Your task to perform on an android device: toggle notifications settings in the gmail app Image 0: 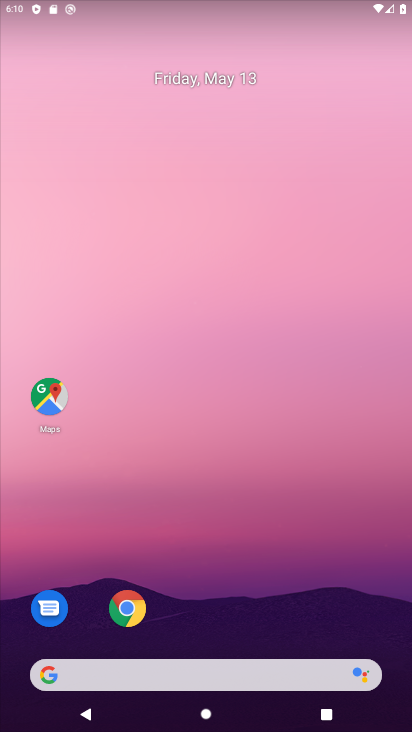
Step 0: drag from (199, 607) to (406, 1)
Your task to perform on an android device: toggle notifications settings in the gmail app Image 1: 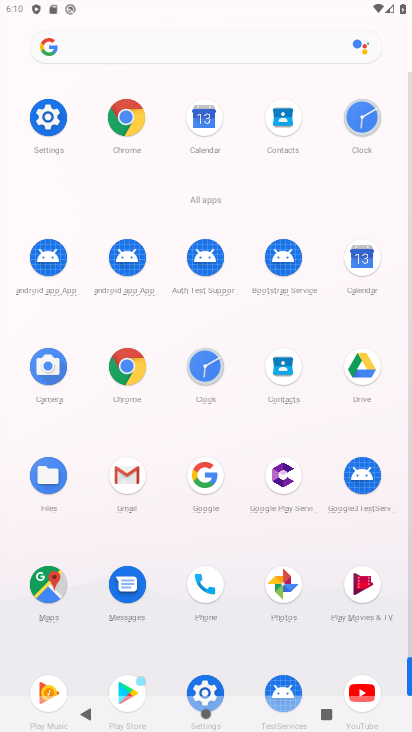
Step 1: click (134, 490)
Your task to perform on an android device: toggle notifications settings in the gmail app Image 2: 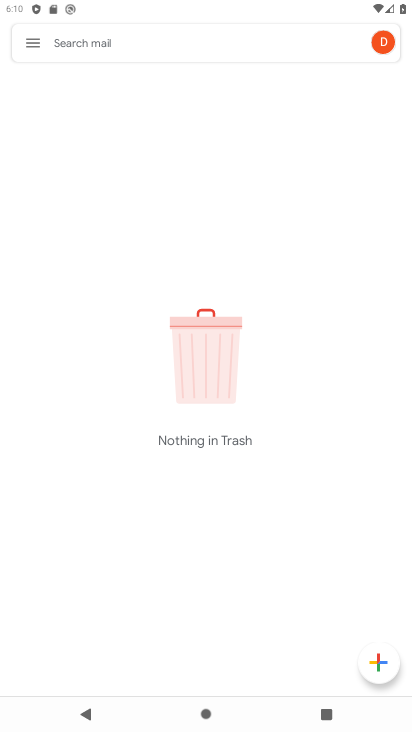
Step 2: click (34, 43)
Your task to perform on an android device: toggle notifications settings in the gmail app Image 3: 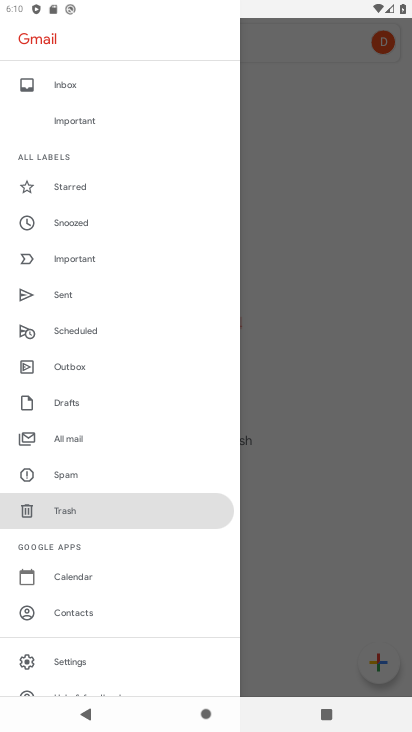
Step 3: drag from (84, 622) to (123, 339)
Your task to perform on an android device: toggle notifications settings in the gmail app Image 4: 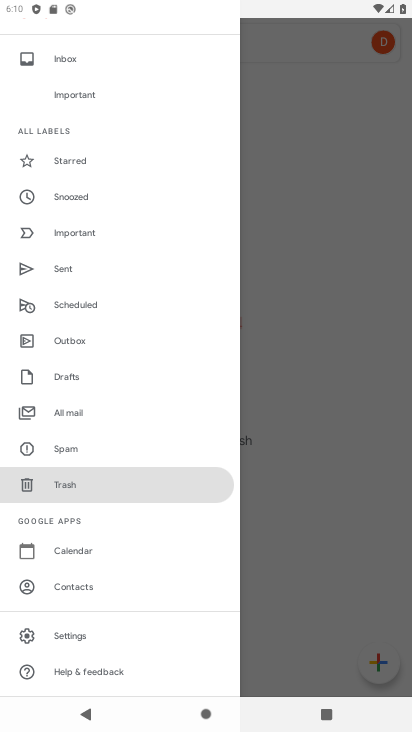
Step 4: click (74, 637)
Your task to perform on an android device: toggle notifications settings in the gmail app Image 5: 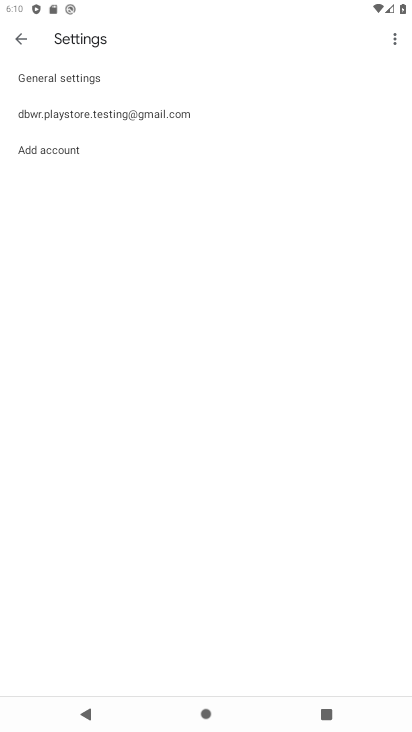
Step 5: click (67, 76)
Your task to perform on an android device: toggle notifications settings in the gmail app Image 6: 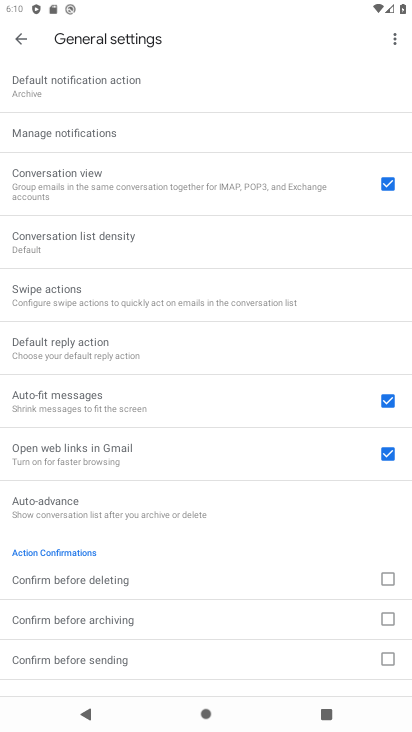
Step 6: click (92, 139)
Your task to perform on an android device: toggle notifications settings in the gmail app Image 7: 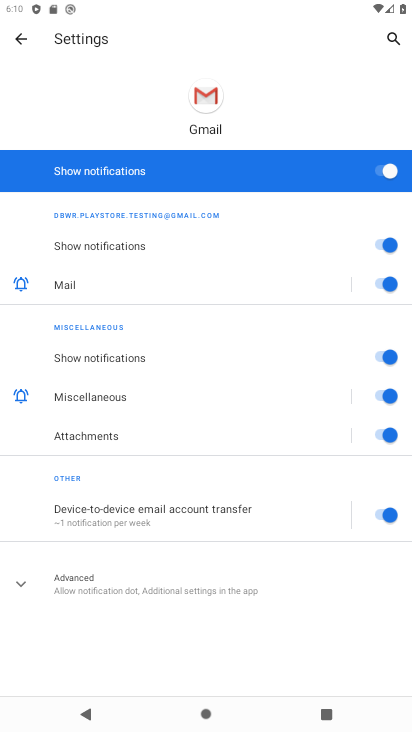
Step 7: click (353, 181)
Your task to perform on an android device: toggle notifications settings in the gmail app Image 8: 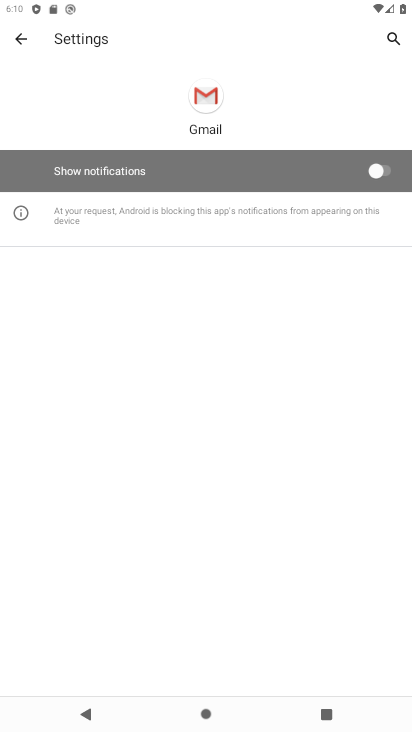
Step 8: task complete